Your task to perform on an android device: Go to accessibility settings Image 0: 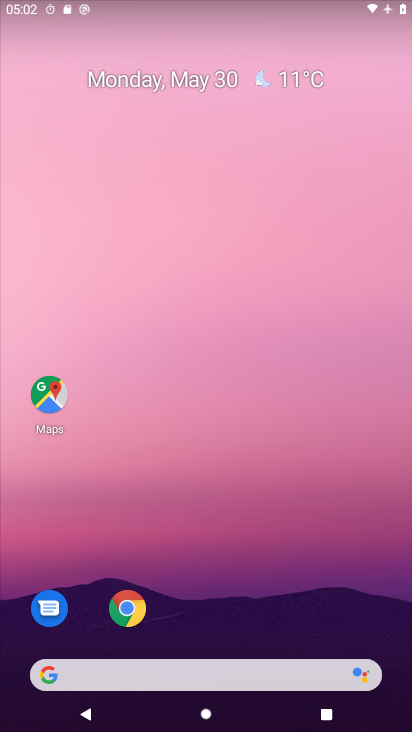
Step 0: drag from (284, 586) to (187, 43)
Your task to perform on an android device: Go to accessibility settings Image 1: 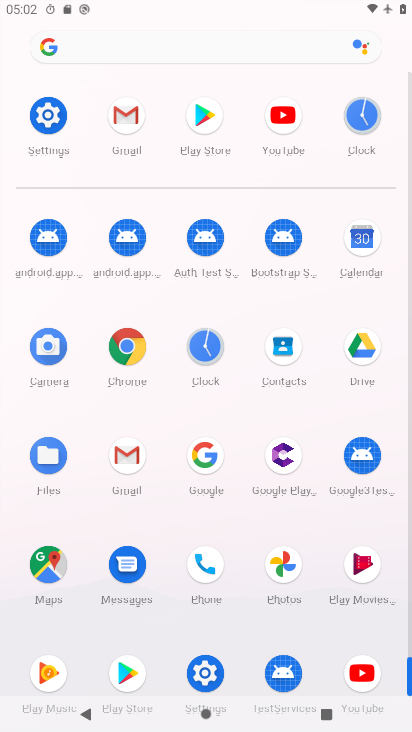
Step 1: click (41, 119)
Your task to perform on an android device: Go to accessibility settings Image 2: 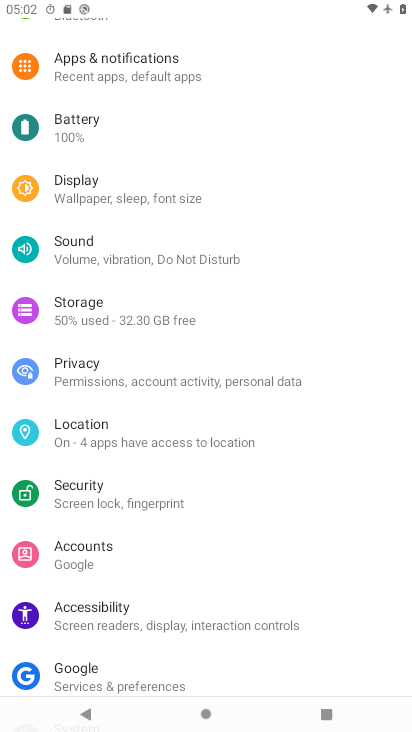
Step 2: click (172, 614)
Your task to perform on an android device: Go to accessibility settings Image 3: 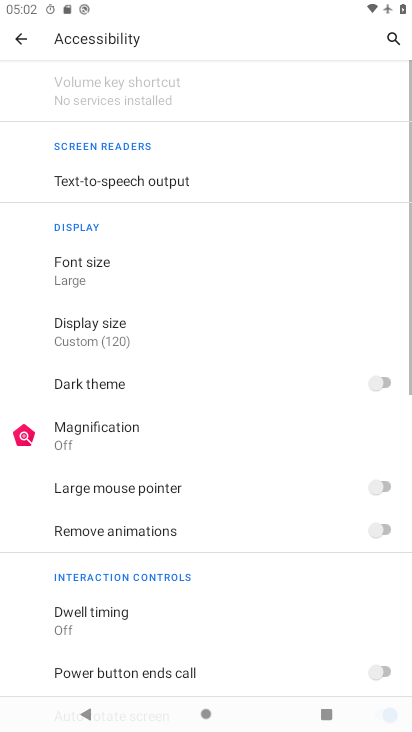
Step 3: task complete